Your task to perform on an android device: Open display settings Image 0: 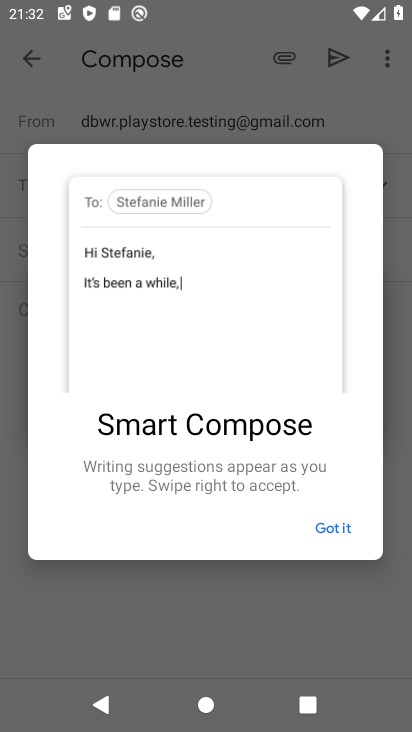
Step 0: press home button
Your task to perform on an android device: Open display settings Image 1: 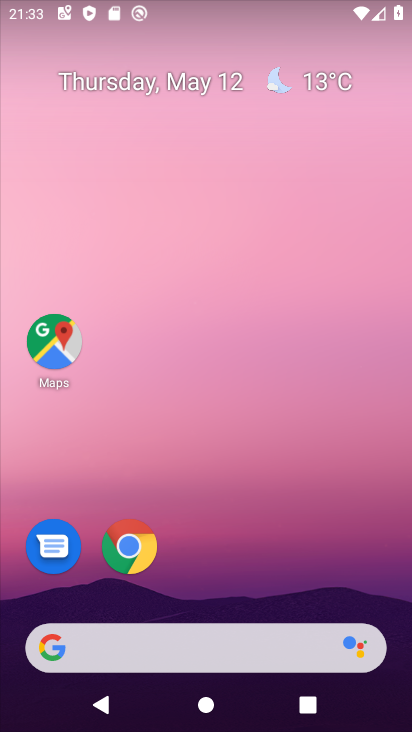
Step 1: drag from (259, 562) to (270, 29)
Your task to perform on an android device: Open display settings Image 2: 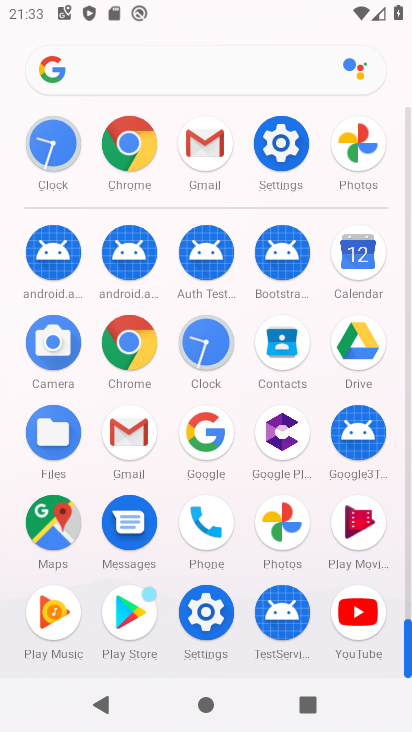
Step 2: click (221, 610)
Your task to perform on an android device: Open display settings Image 3: 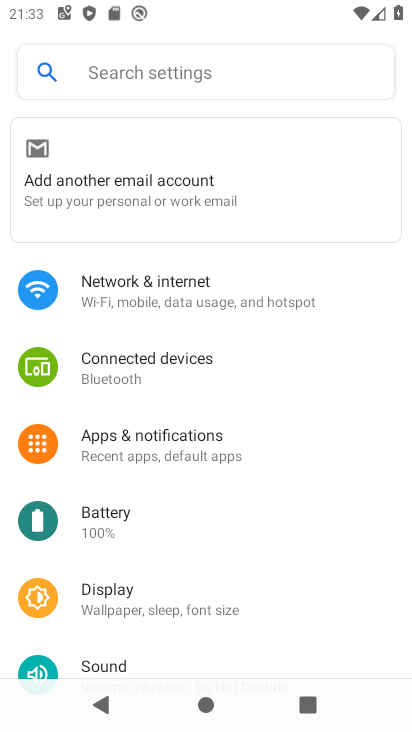
Step 3: click (126, 608)
Your task to perform on an android device: Open display settings Image 4: 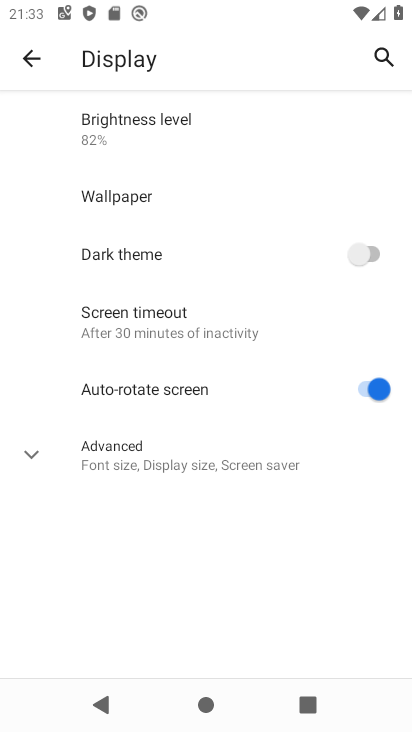
Step 4: task complete